Your task to perform on an android device: Open settings on Google Maps Image 0: 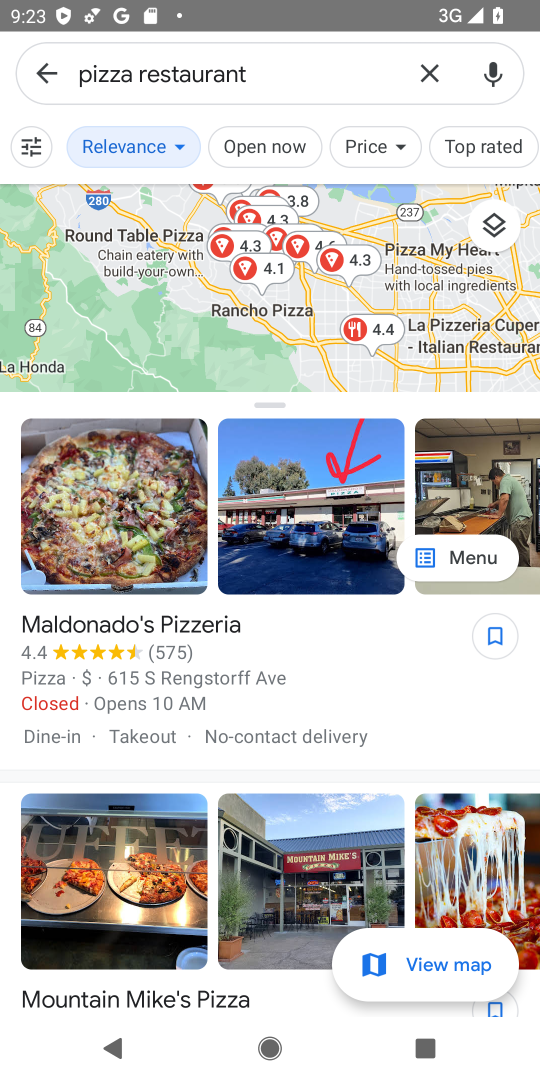
Step 0: click (45, 70)
Your task to perform on an android device: Open settings on Google Maps Image 1: 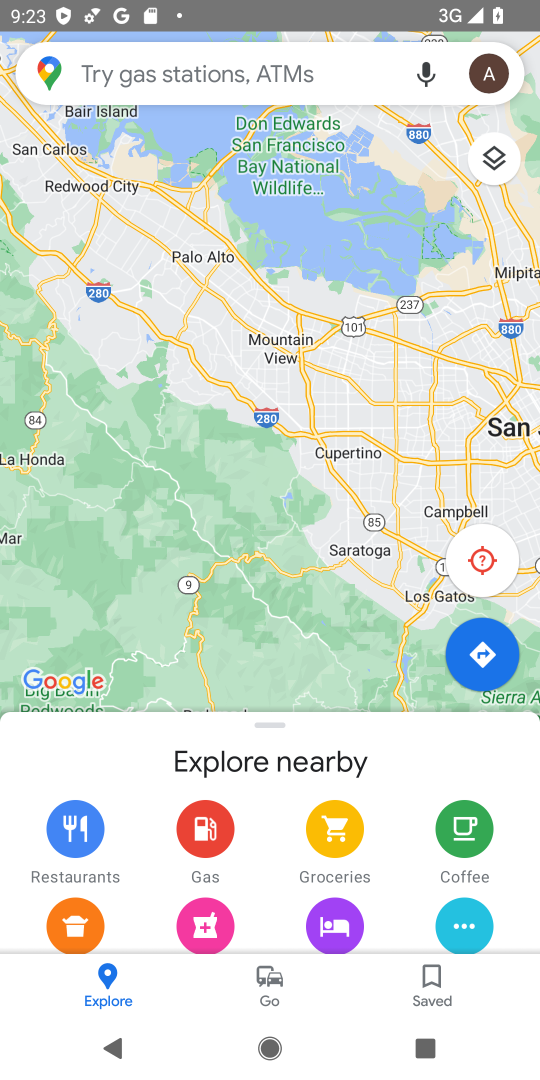
Step 1: click (483, 58)
Your task to perform on an android device: Open settings on Google Maps Image 2: 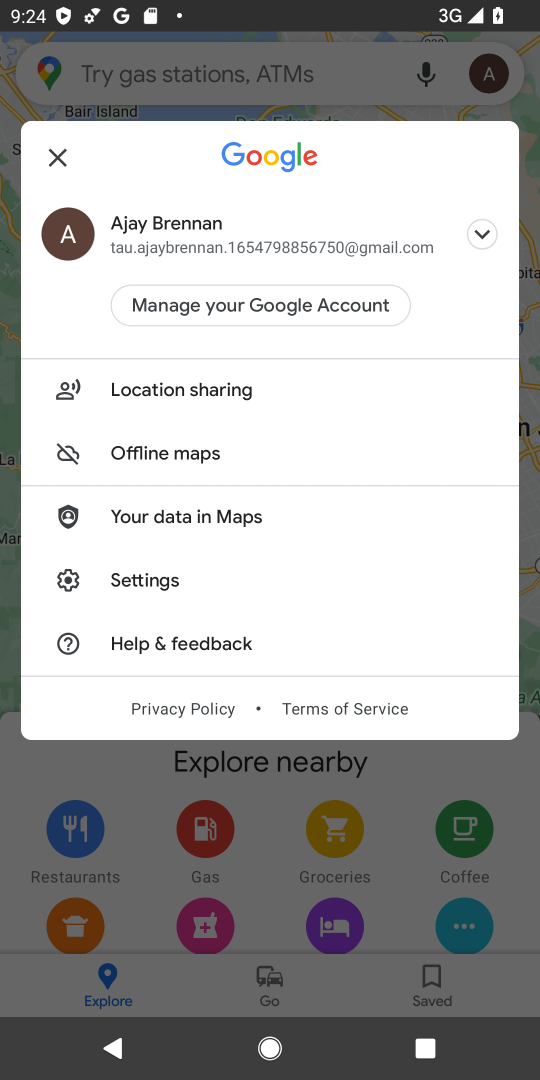
Step 2: click (189, 569)
Your task to perform on an android device: Open settings on Google Maps Image 3: 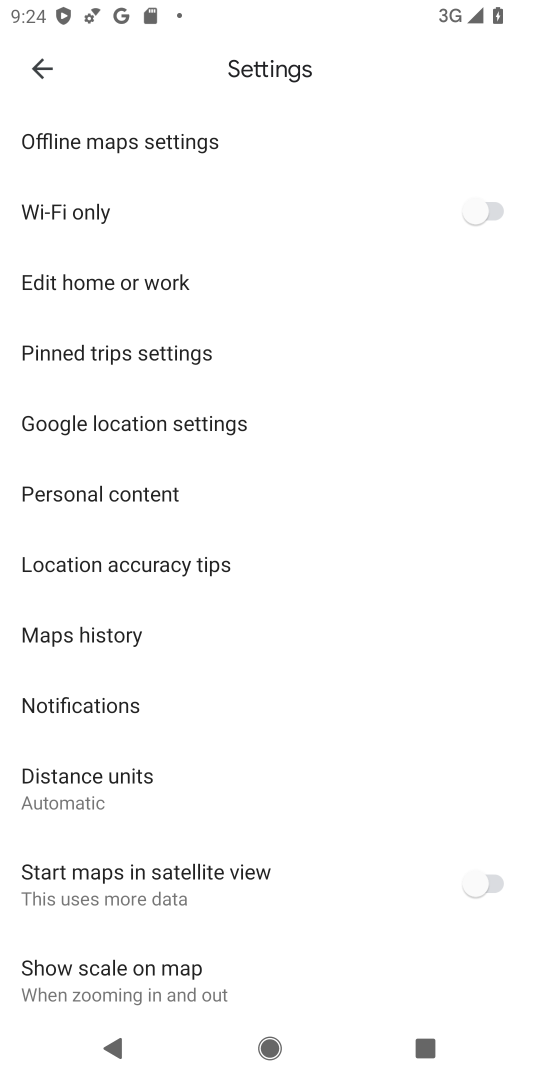
Step 3: task complete